Your task to perform on an android device: Go to notification settings Image 0: 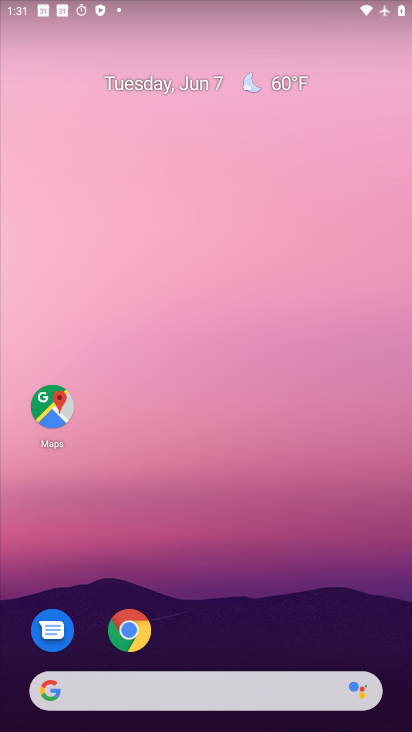
Step 0: drag from (333, 615) to (218, 50)
Your task to perform on an android device: Go to notification settings Image 1: 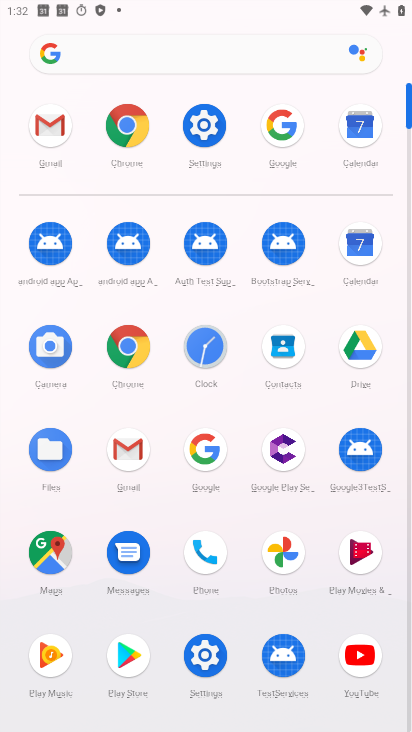
Step 1: click (214, 641)
Your task to perform on an android device: Go to notification settings Image 2: 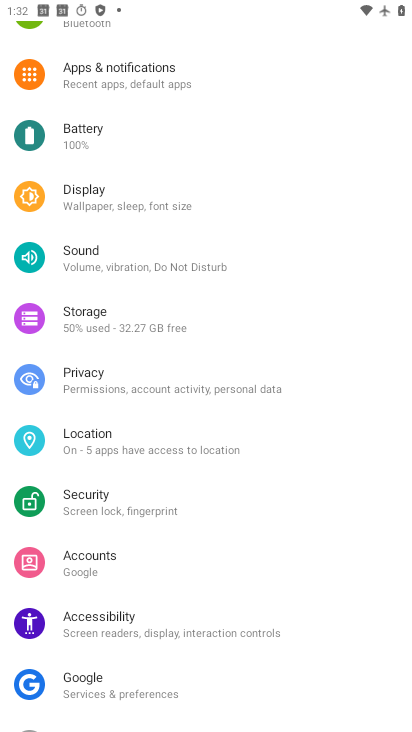
Step 2: click (154, 86)
Your task to perform on an android device: Go to notification settings Image 3: 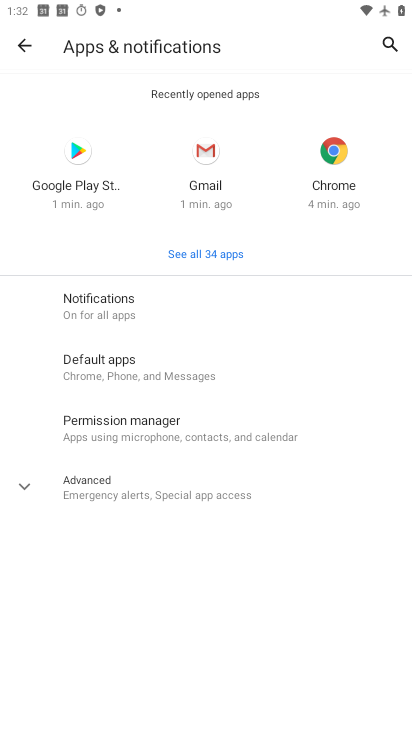
Step 3: click (207, 293)
Your task to perform on an android device: Go to notification settings Image 4: 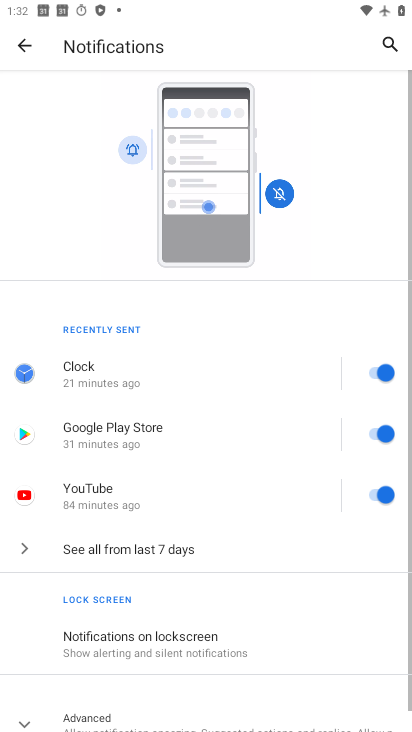
Step 4: task complete